Your task to perform on an android device: Search for vegetarian restaurants on Maps Image 0: 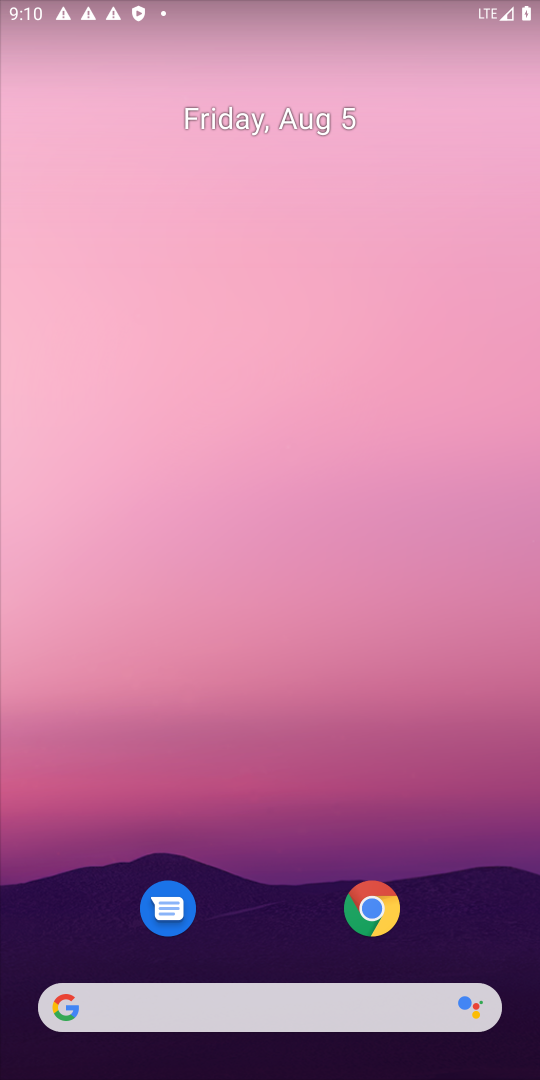
Step 0: drag from (256, 916) to (252, 474)
Your task to perform on an android device: Search for vegetarian restaurants on Maps Image 1: 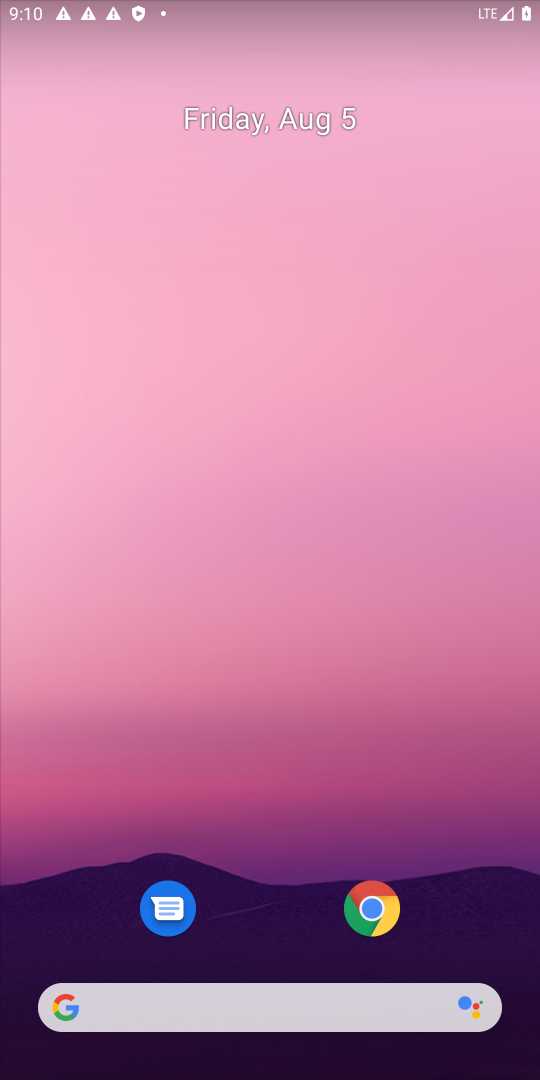
Step 1: drag from (245, 931) to (219, 189)
Your task to perform on an android device: Search for vegetarian restaurants on Maps Image 2: 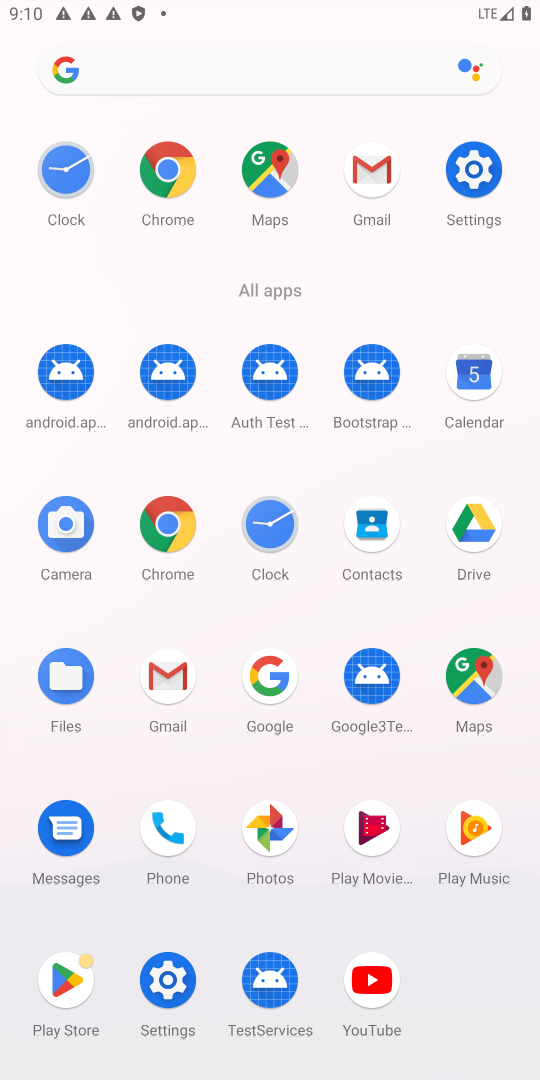
Step 2: click (471, 679)
Your task to perform on an android device: Search for vegetarian restaurants on Maps Image 3: 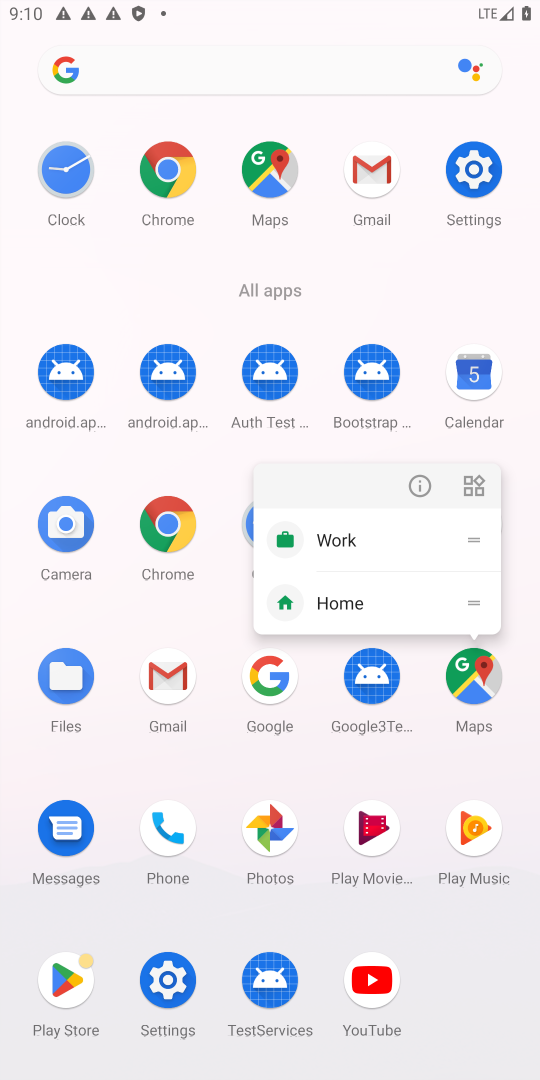
Step 3: click (471, 679)
Your task to perform on an android device: Search for vegetarian restaurants on Maps Image 4: 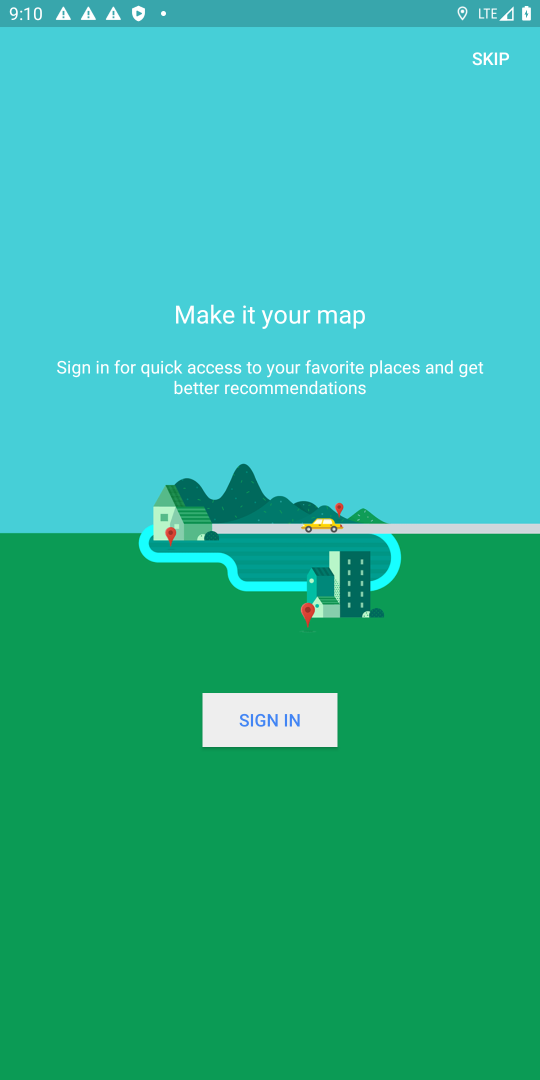
Step 4: task complete